Your task to perform on an android device: turn off javascript in the chrome app Image 0: 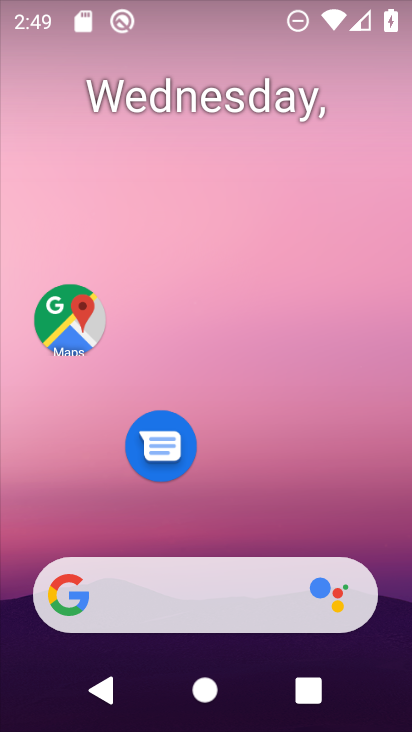
Step 0: drag from (293, 522) to (376, 79)
Your task to perform on an android device: turn off javascript in the chrome app Image 1: 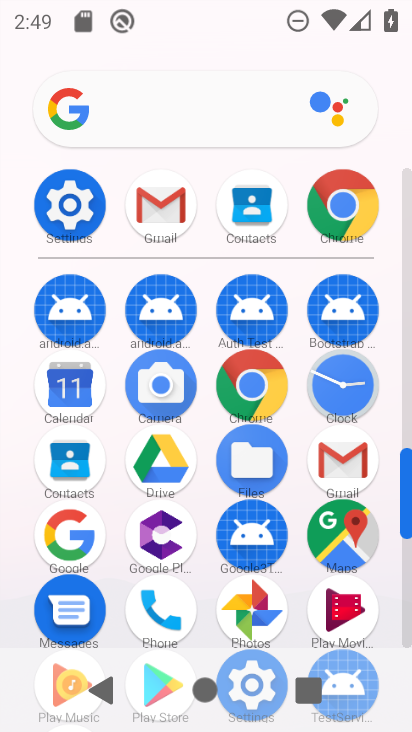
Step 1: click (95, 194)
Your task to perform on an android device: turn off javascript in the chrome app Image 2: 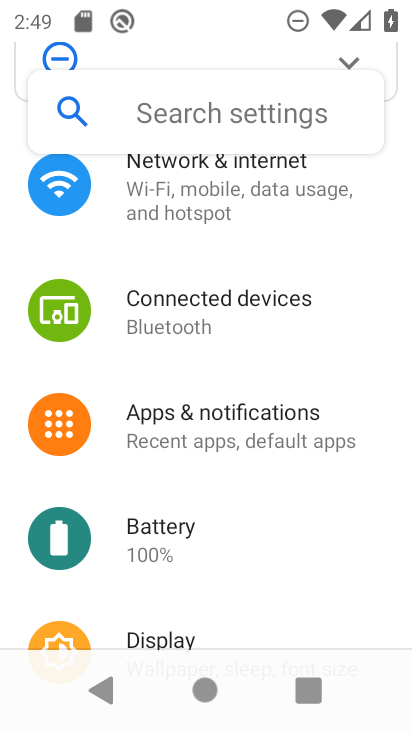
Step 2: press home button
Your task to perform on an android device: turn off javascript in the chrome app Image 3: 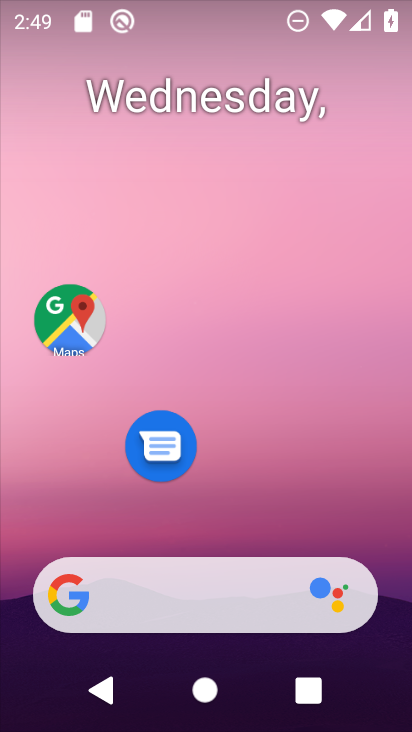
Step 3: drag from (249, 518) to (313, 34)
Your task to perform on an android device: turn off javascript in the chrome app Image 4: 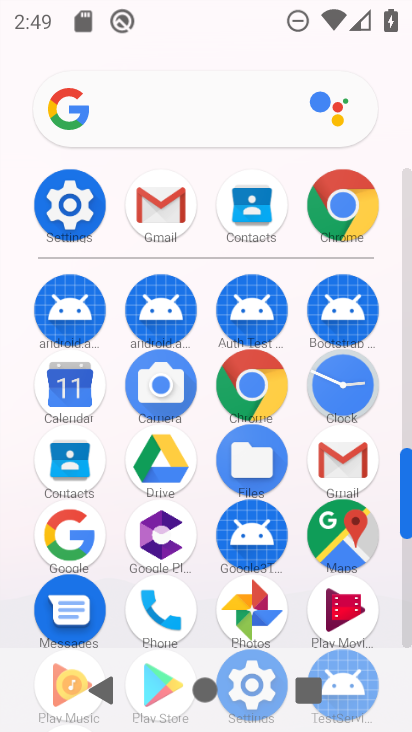
Step 4: click (69, 179)
Your task to perform on an android device: turn off javascript in the chrome app Image 5: 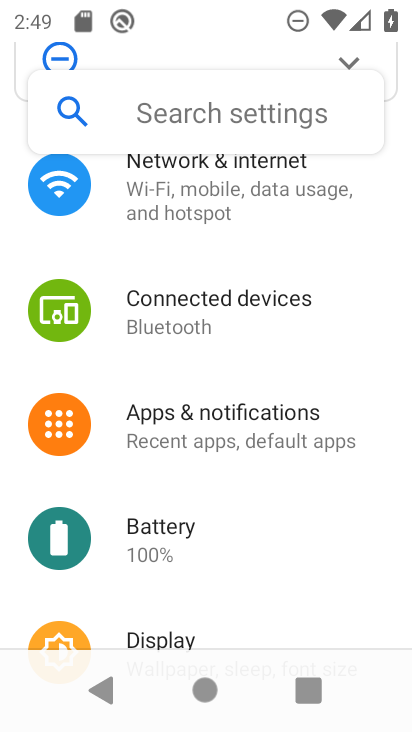
Step 5: press home button
Your task to perform on an android device: turn off javascript in the chrome app Image 6: 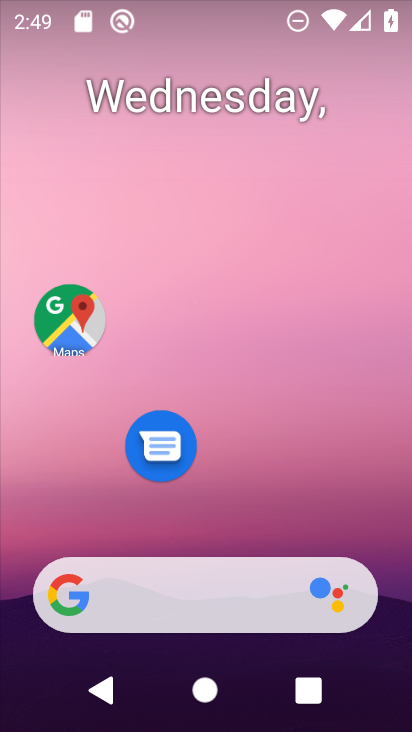
Step 6: drag from (263, 487) to (306, 145)
Your task to perform on an android device: turn off javascript in the chrome app Image 7: 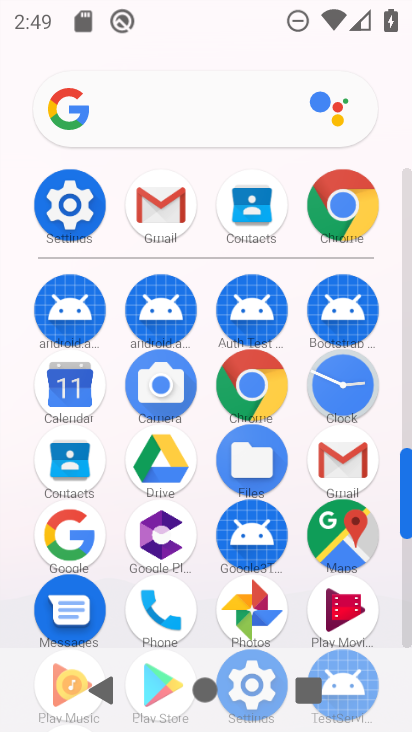
Step 7: click (368, 210)
Your task to perform on an android device: turn off javascript in the chrome app Image 8: 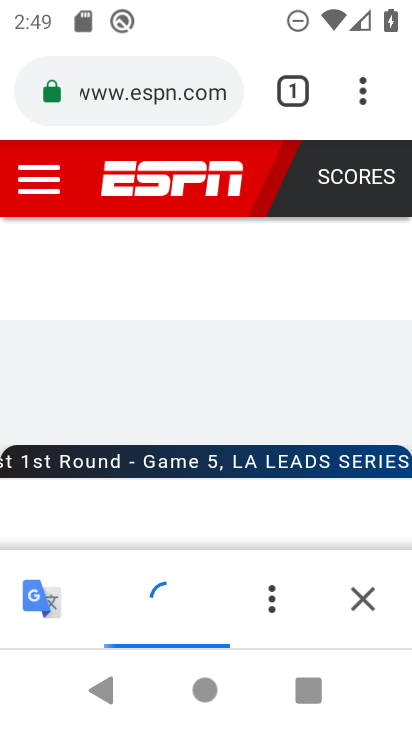
Step 8: click (349, 105)
Your task to perform on an android device: turn off javascript in the chrome app Image 9: 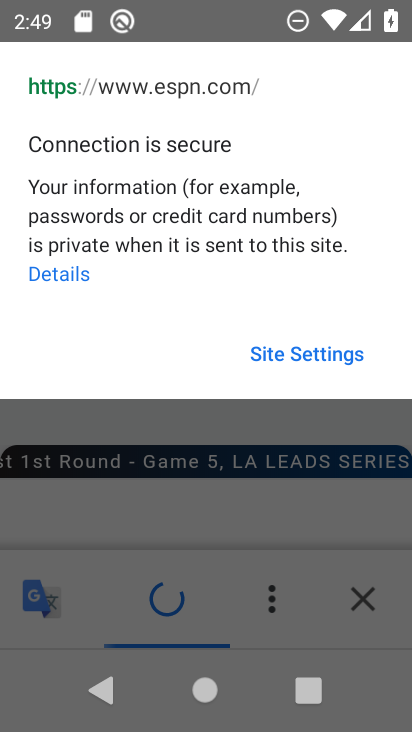
Step 9: click (251, 410)
Your task to perform on an android device: turn off javascript in the chrome app Image 10: 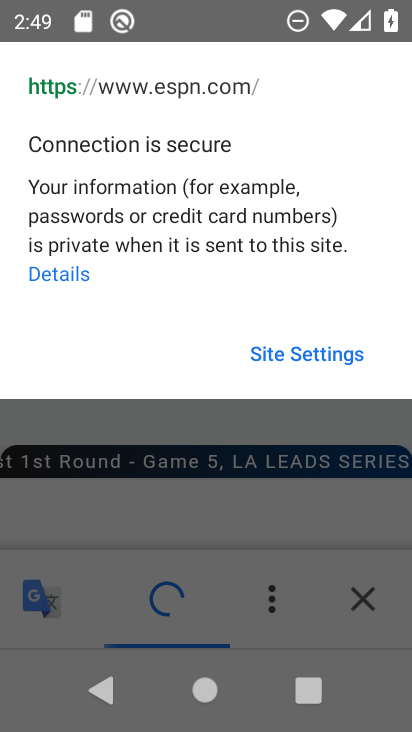
Step 10: click (223, 480)
Your task to perform on an android device: turn off javascript in the chrome app Image 11: 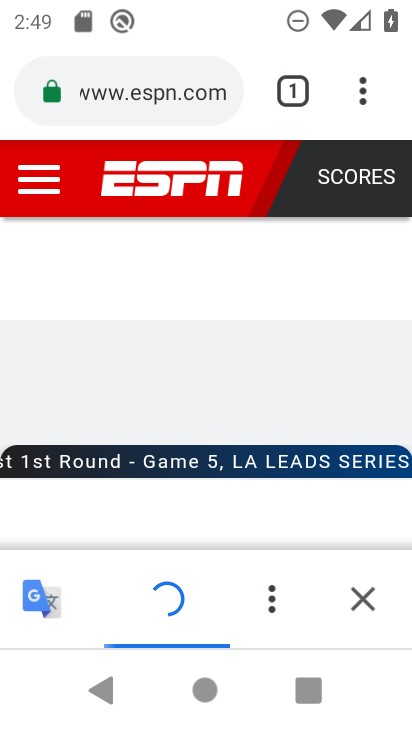
Step 11: click (358, 104)
Your task to perform on an android device: turn off javascript in the chrome app Image 12: 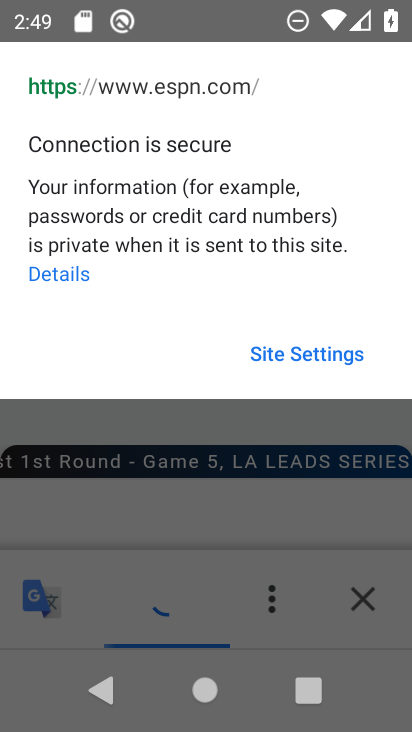
Step 12: click (278, 472)
Your task to perform on an android device: turn off javascript in the chrome app Image 13: 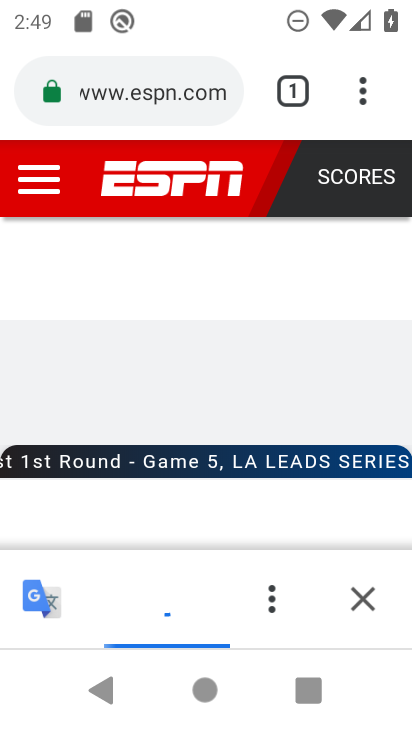
Step 13: click (365, 103)
Your task to perform on an android device: turn off javascript in the chrome app Image 14: 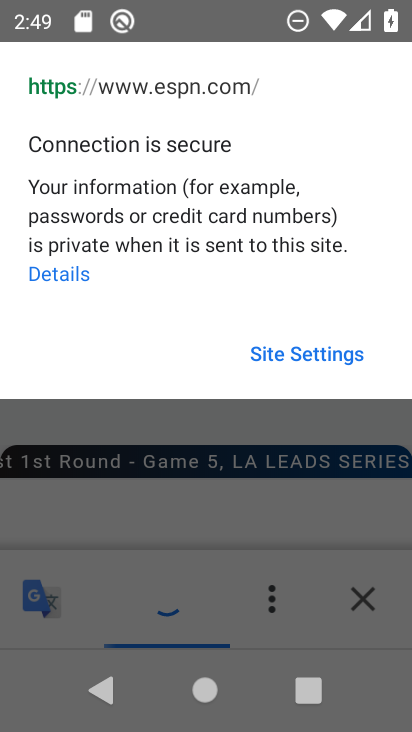
Step 14: click (289, 325)
Your task to perform on an android device: turn off javascript in the chrome app Image 15: 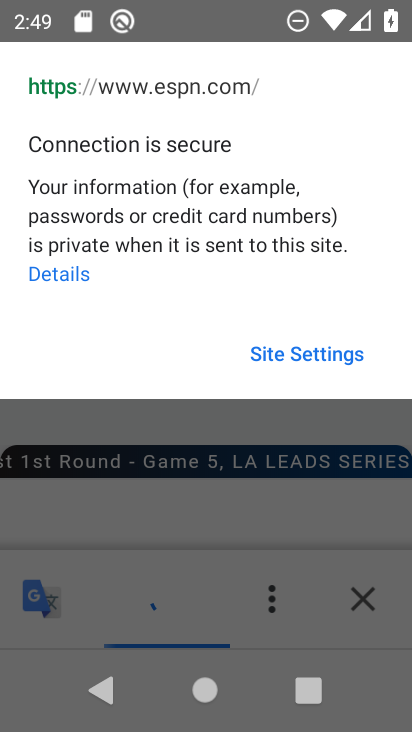
Step 15: click (289, 325)
Your task to perform on an android device: turn off javascript in the chrome app Image 16: 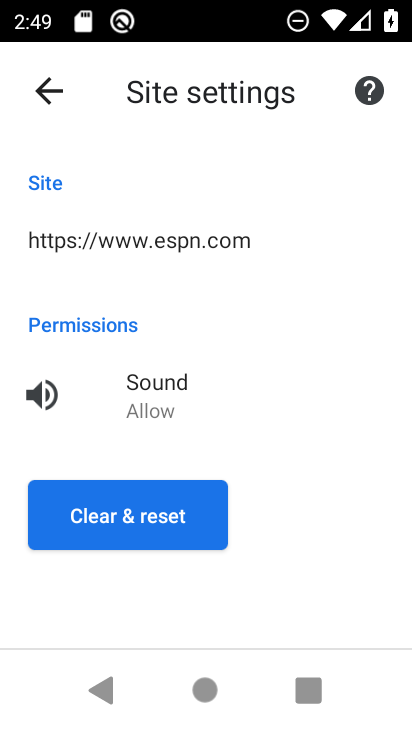
Step 16: click (45, 97)
Your task to perform on an android device: turn off javascript in the chrome app Image 17: 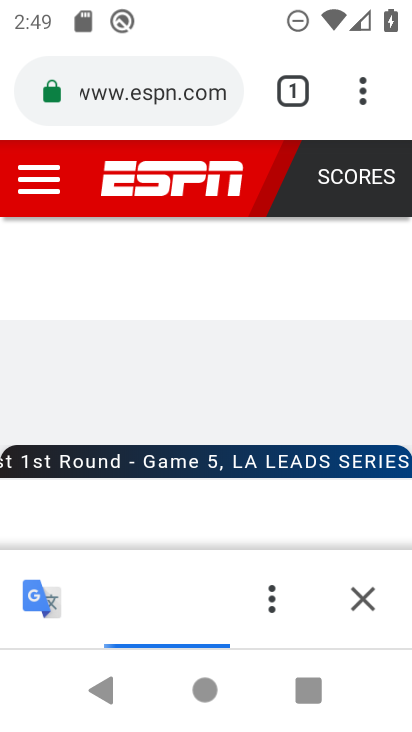
Step 17: click (361, 100)
Your task to perform on an android device: turn off javascript in the chrome app Image 18: 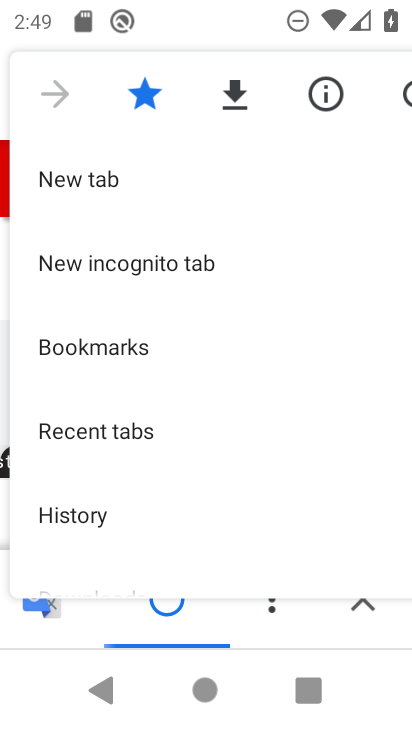
Step 18: drag from (316, 449) to (343, 267)
Your task to perform on an android device: turn off javascript in the chrome app Image 19: 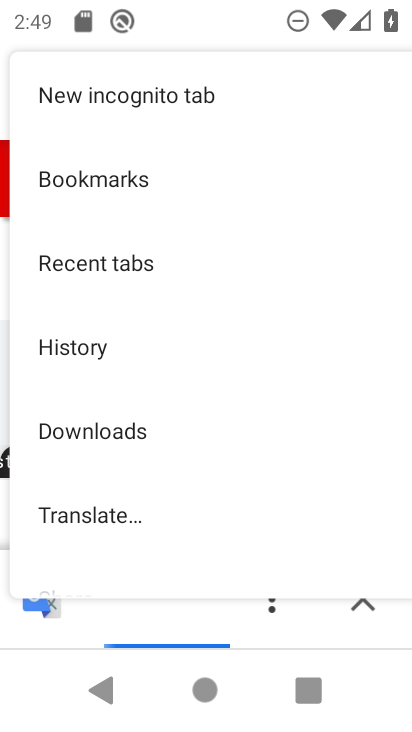
Step 19: drag from (164, 584) to (213, 312)
Your task to perform on an android device: turn off javascript in the chrome app Image 20: 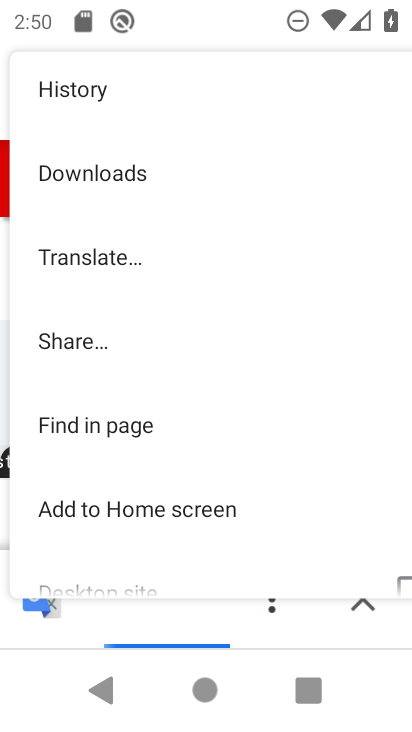
Step 20: drag from (165, 581) to (196, 268)
Your task to perform on an android device: turn off javascript in the chrome app Image 21: 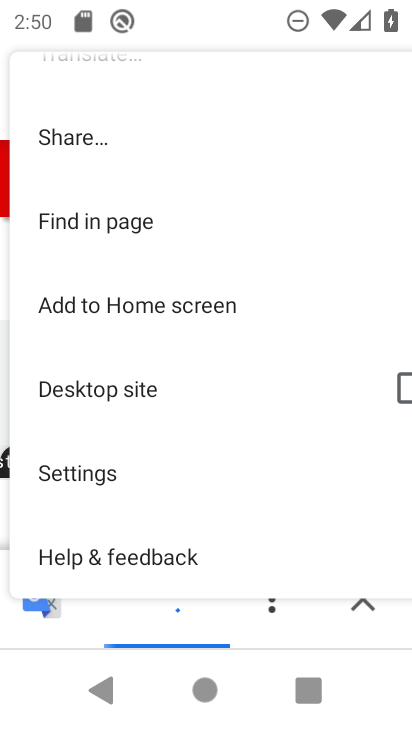
Step 21: click (150, 464)
Your task to perform on an android device: turn off javascript in the chrome app Image 22: 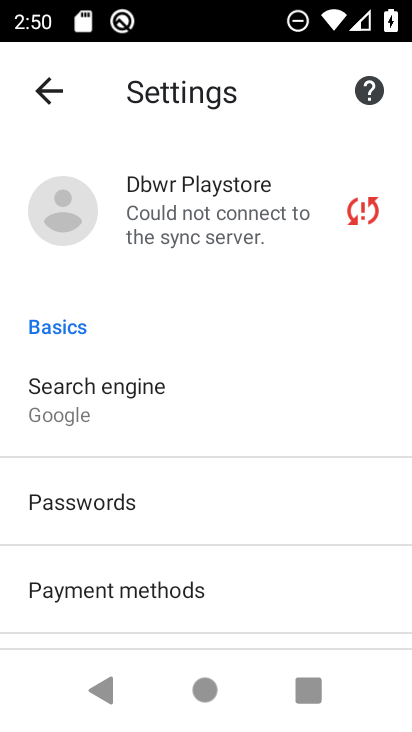
Step 22: drag from (150, 464) to (188, 293)
Your task to perform on an android device: turn off javascript in the chrome app Image 23: 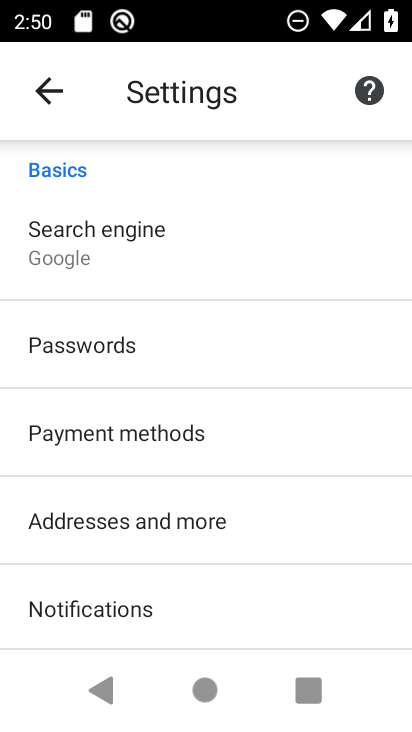
Step 23: drag from (160, 520) to (208, 279)
Your task to perform on an android device: turn off javascript in the chrome app Image 24: 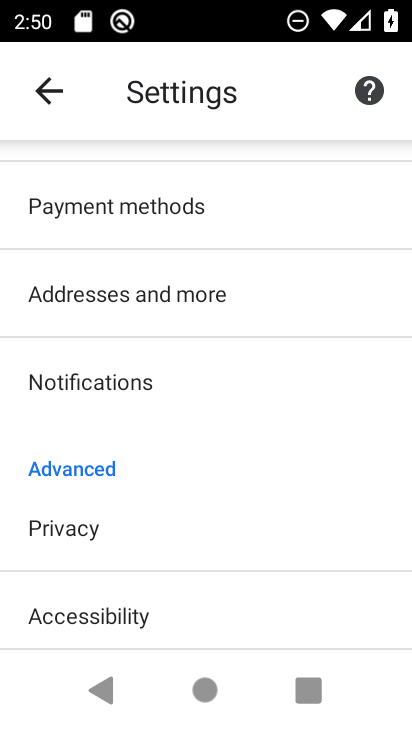
Step 24: drag from (150, 525) to (183, 377)
Your task to perform on an android device: turn off javascript in the chrome app Image 25: 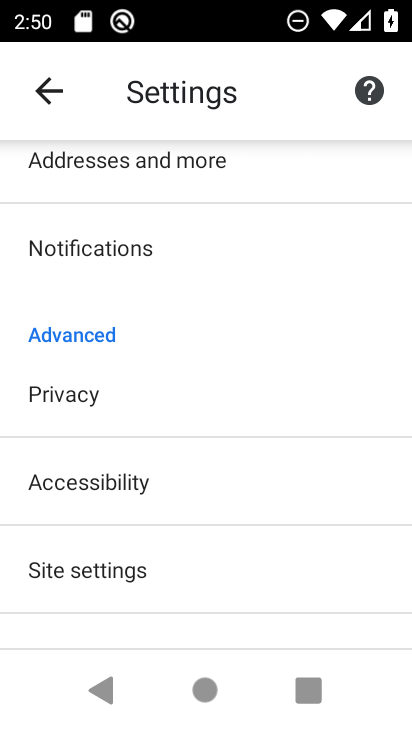
Step 25: click (194, 594)
Your task to perform on an android device: turn off javascript in the chrome app Image 26: 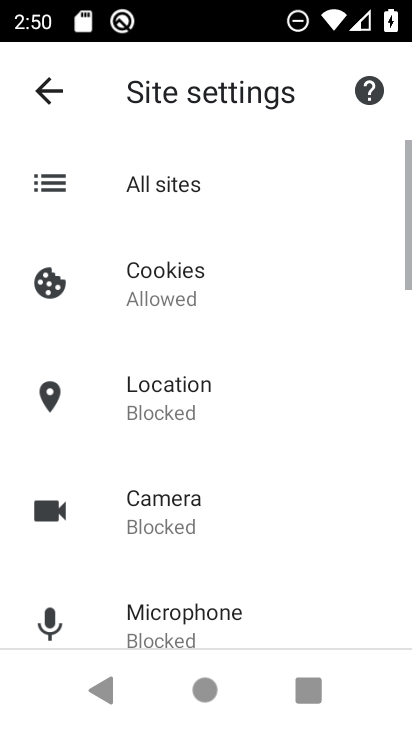
Step 26: drag from (194, 594) to (214, 247)
Your task to perform on an android device: turn off javascript in the chrome app Image 27: 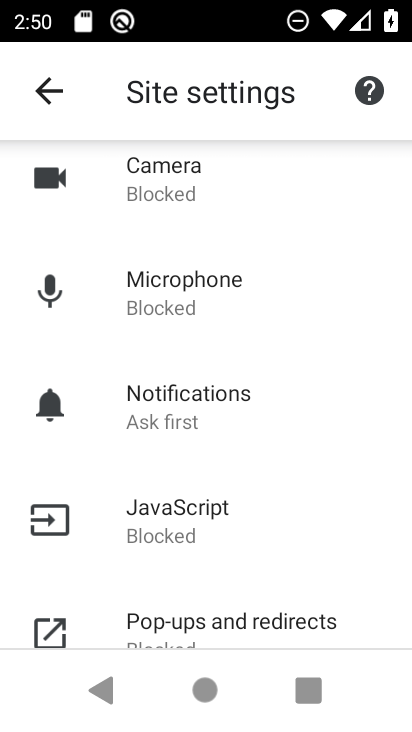
Step 27: click (256, 538)
Your task to perform on an android device: turn off javascript in the chrome app Image 28: 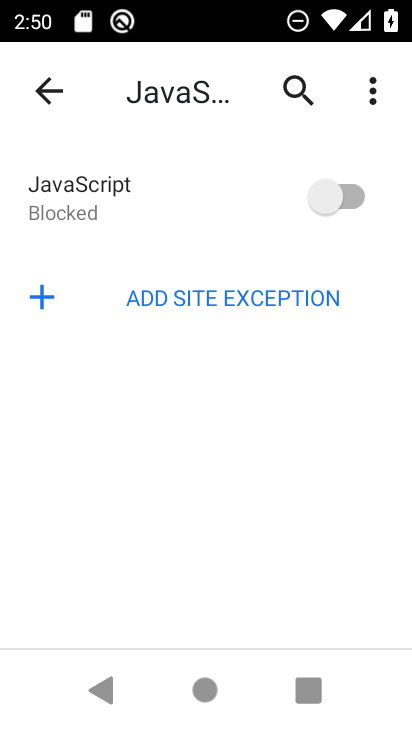
Step 28: task complete